Your task to perform on an android device: move a message to another label in the gmail app Image 0: 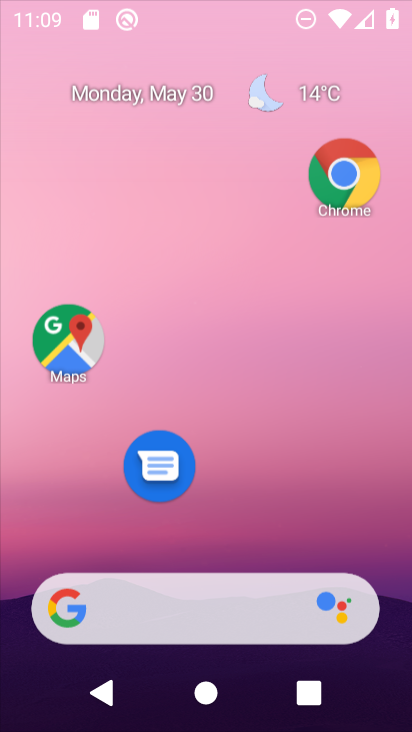
Step 0: click (361, 187)
Your task to perform on an android device: move a message to another label in the gmail app Image 1: 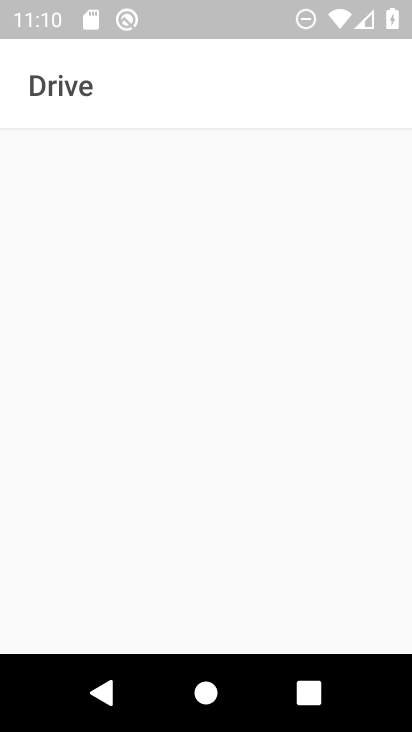
Step 1: press home button
Your task to perform on an android device: move a message to another label in the gmail app Image 2: 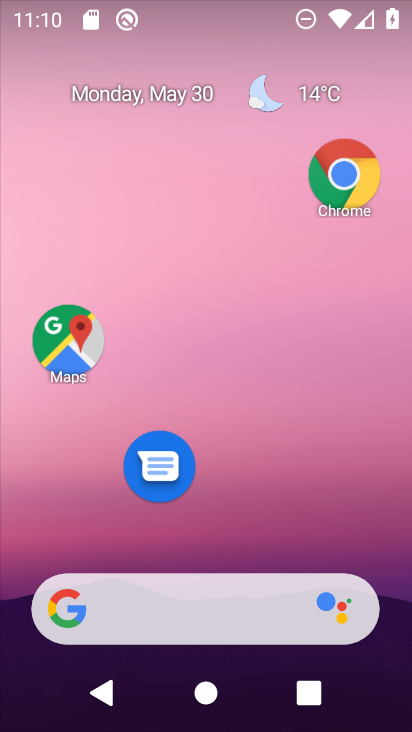
Step 2: click (339, 167)
Your task to perform on an android device: move a message to another label in the gmail app Image 3: 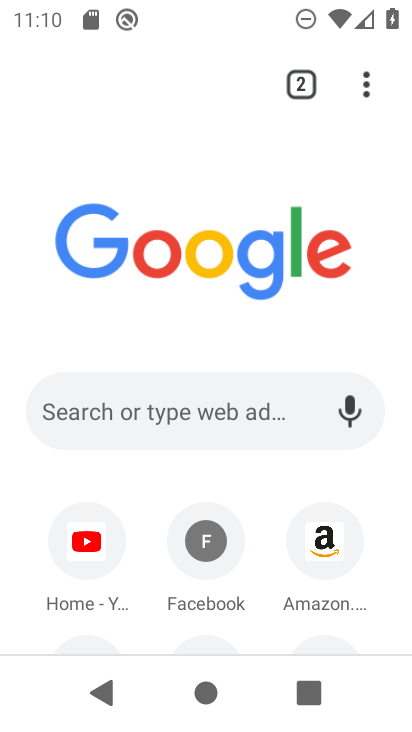
Step 3: press home button
Your task to perform on an android device: move a message to another label in the gmail app Image 4: 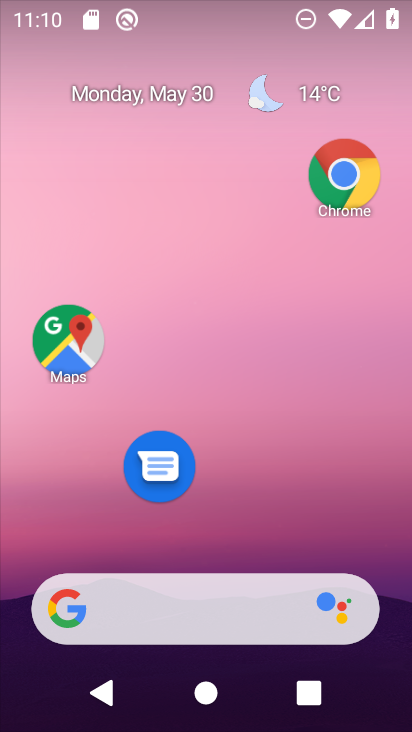
Step 4: drag from (337, 430) to (267, 248)
Your task to perform on an android device: move a message to another label in the gmail app Image 5: 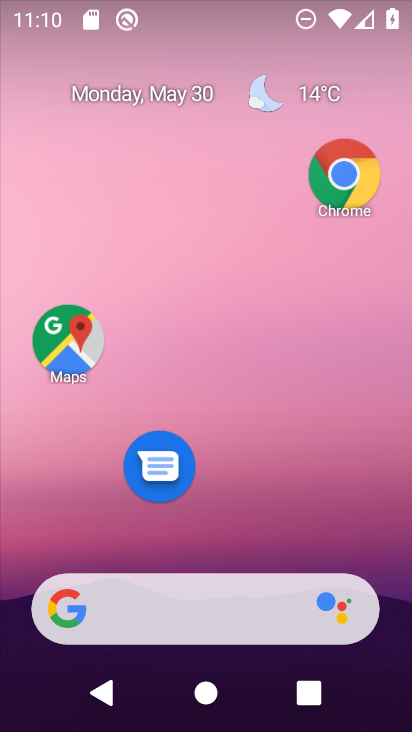
Step 5: drag from (236, 543) to (231, 292)
Your task to perform on an android device: move a message to another label in the gmail app Image 6: 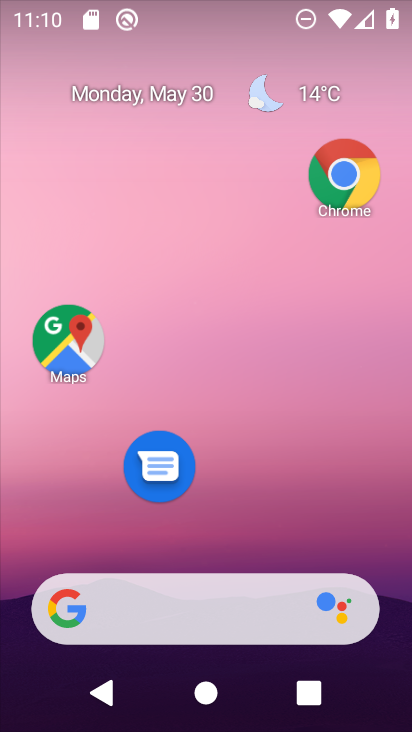
Step 6: drag from (262, 695) to (224, 148)
Your task to perform on an android device: move a message to another label in the gmail app Image 7: 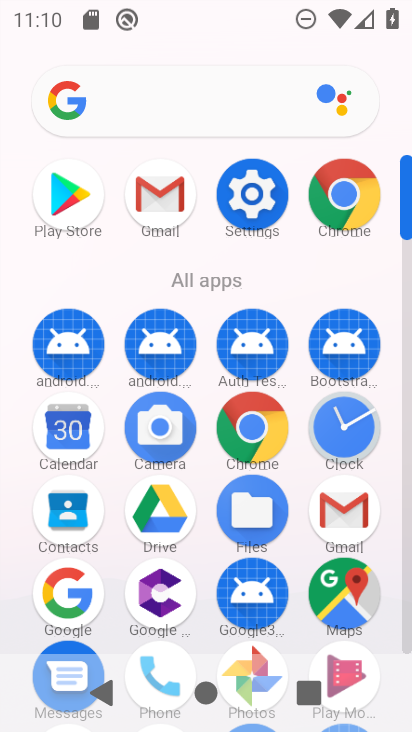
Step 7: click (161, 203)
Your task to perform on an android device: move a message to another label in the gmail app Image 8: 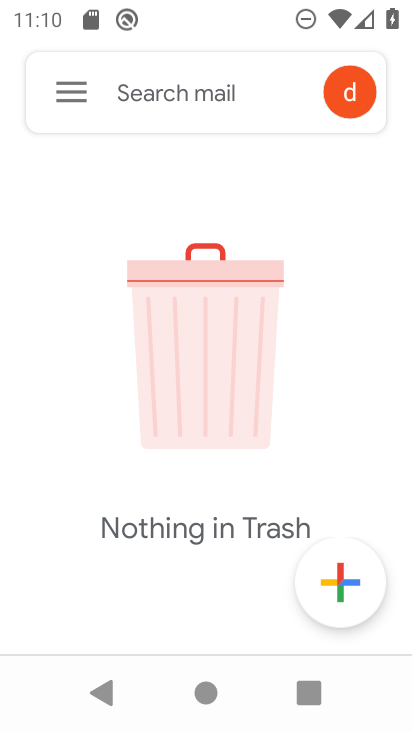
Step 8: click (65, 81)
Your task to perform on an android device: move a message to another label in the gmail app Image 9: 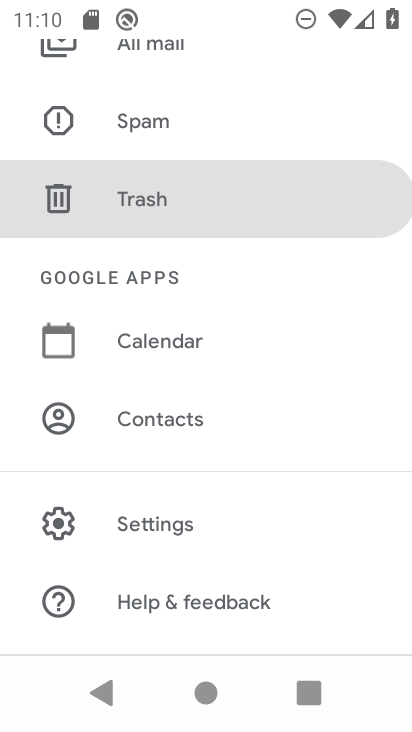
Step 9: drag from (234, 53) to (267, 445)
Your task to perform on an android device: move a message to another label in the gmail app Image 10: 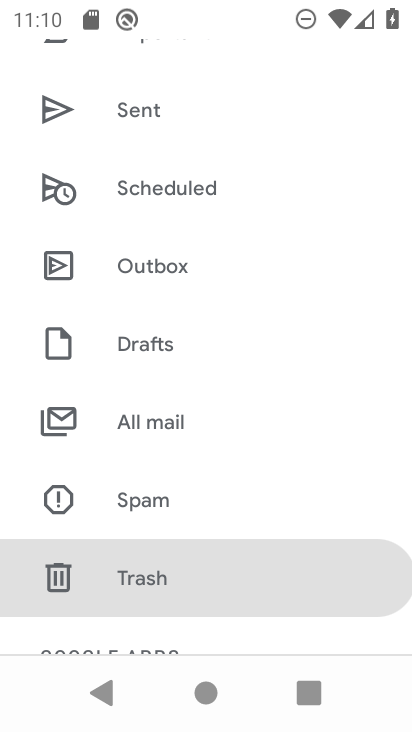
Step 10: drag from (218, 174) to (239, 589)
Your task to perform on an android device: move a message to another label in the gmail app Image 11: 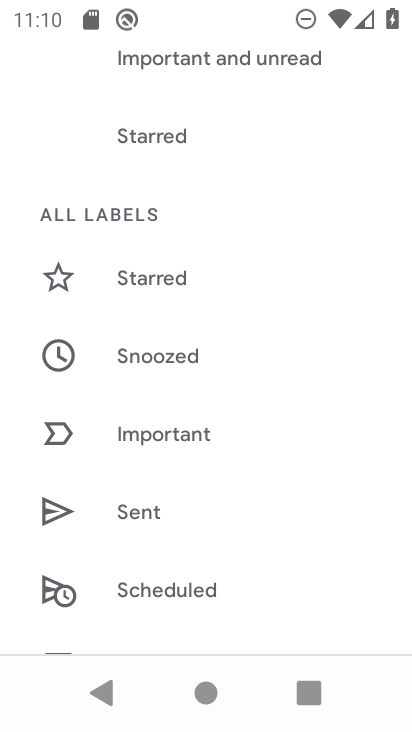
Step 11: drag from (211, 229) to (203, 606)
Your task to perform on an android device: move a message to another label in the gmail app Image 12: 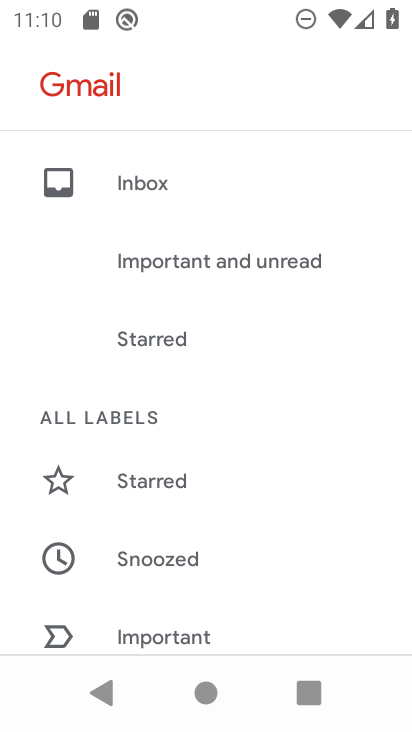
Step 12: click (263, 167)
Your task to perform on an android device: move a message to another label in the gmail app Image 13: 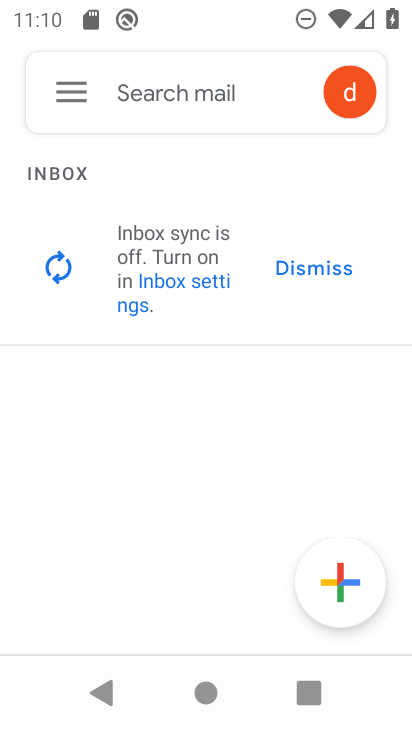
Step 13: click (68, 80)
Your task to perform on an android device: move a message to another label in the gmail app Image 14: 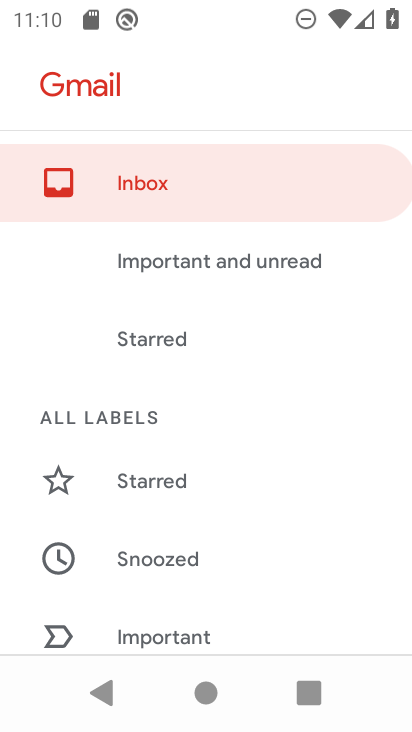
Step 14: drag from (230, 577) to (243, 205)
Your task to perform on an android device: move a message to another label in the gmail app Image 15: 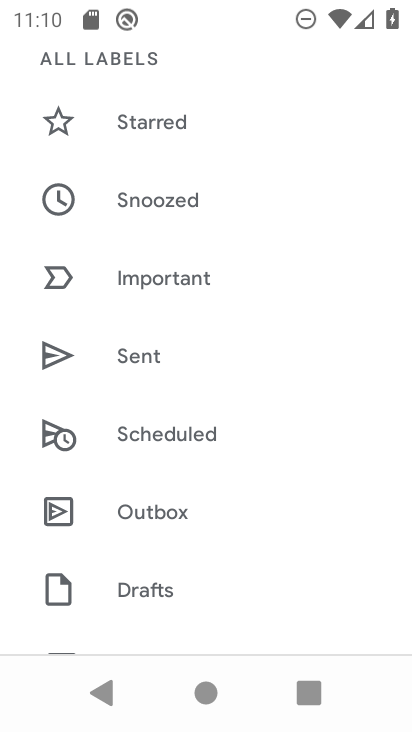
Step 15: drag from (284, 537) to (307, 199)
Your task to perform on an android device: move a message to another label in the gmail app Image 16: 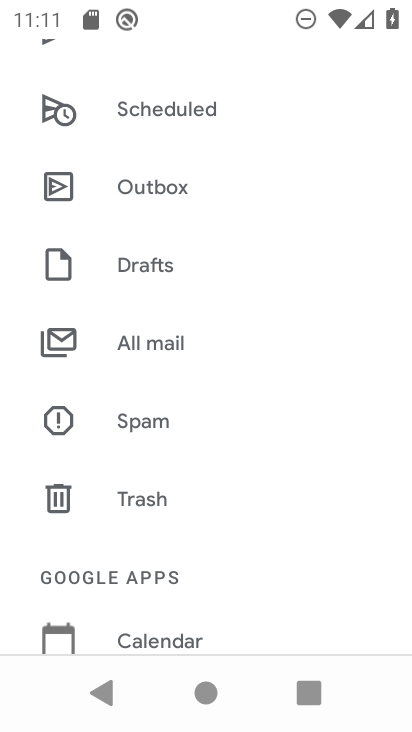
Step 16: click (169, 338)
Your task to perform on an android device: move a message to another label in the gmail app Image 17: 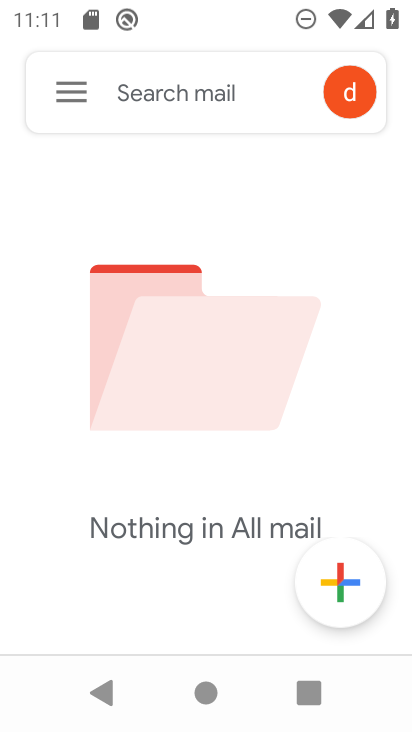
Step 17: task complete